Your task to perform on an android device: toggle location history Image 0: 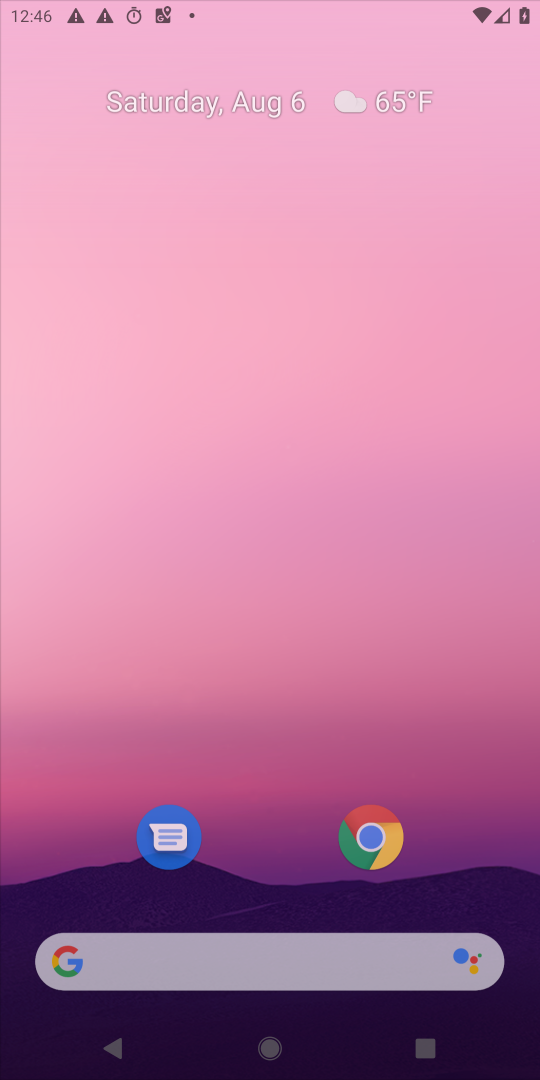
Step 0: press home button
Your task to perform on an android device: toggle location history Image 1: 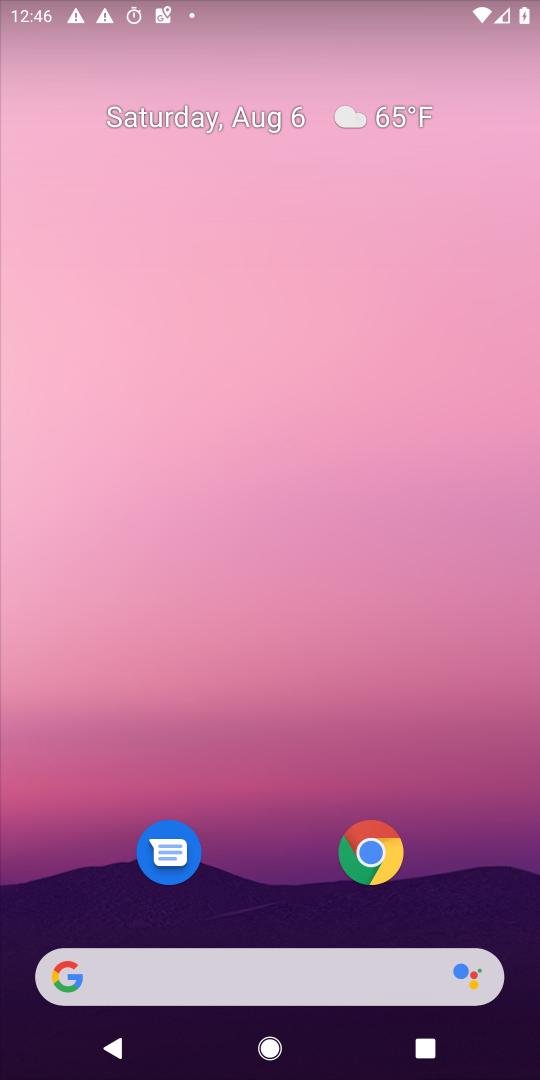
Step 1: drag from (385, 971) to (346, 163)
Your task to perform on an android device: toggle location history Image 2: 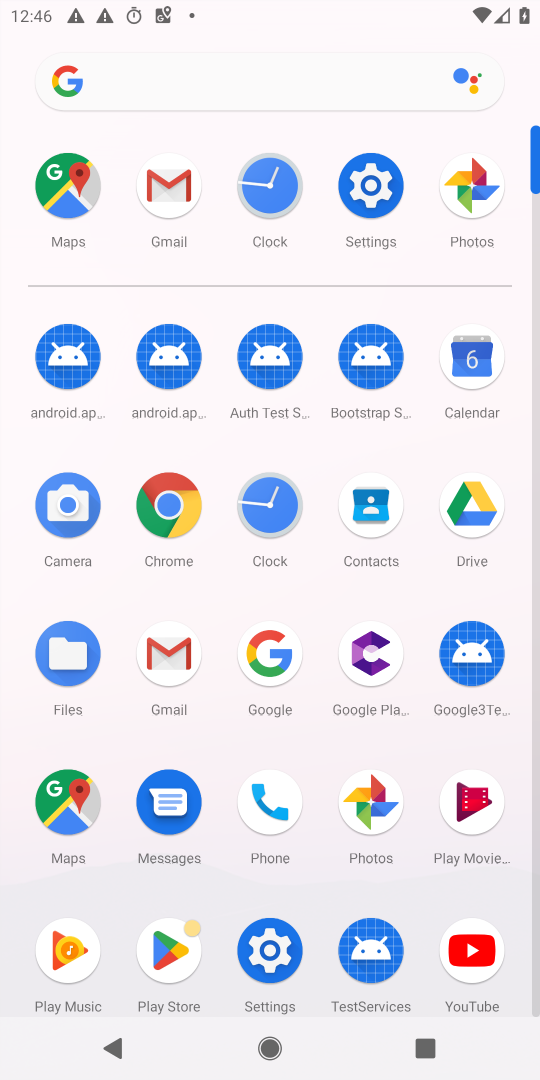
Step 2: click (286, 934)
Your task to perform on an android device: toggle location history Image 3: 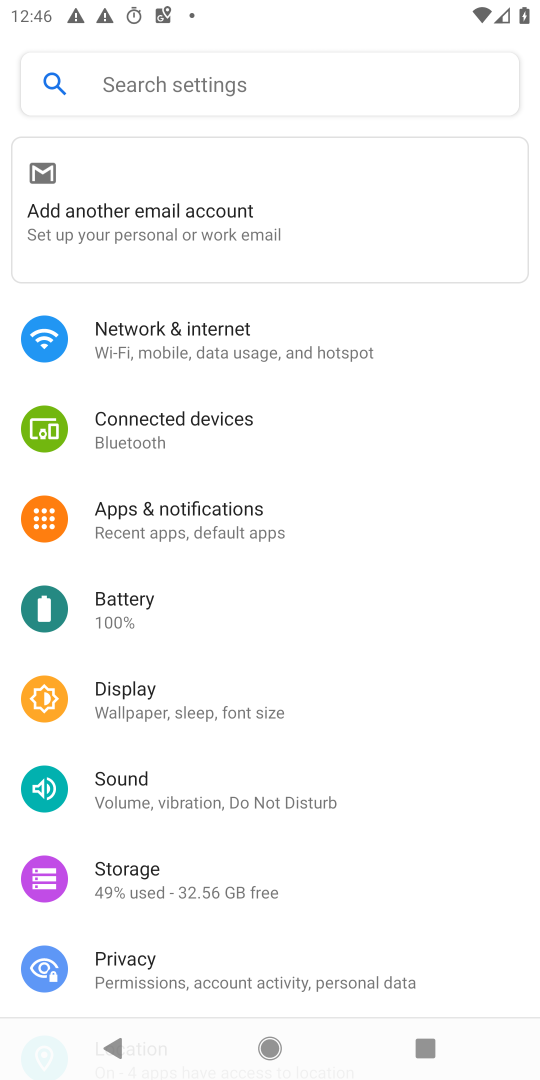
Step 3: drag from (217, 903) to (214, 788)
Your task to perform on an android device: toggle location history Image 4: 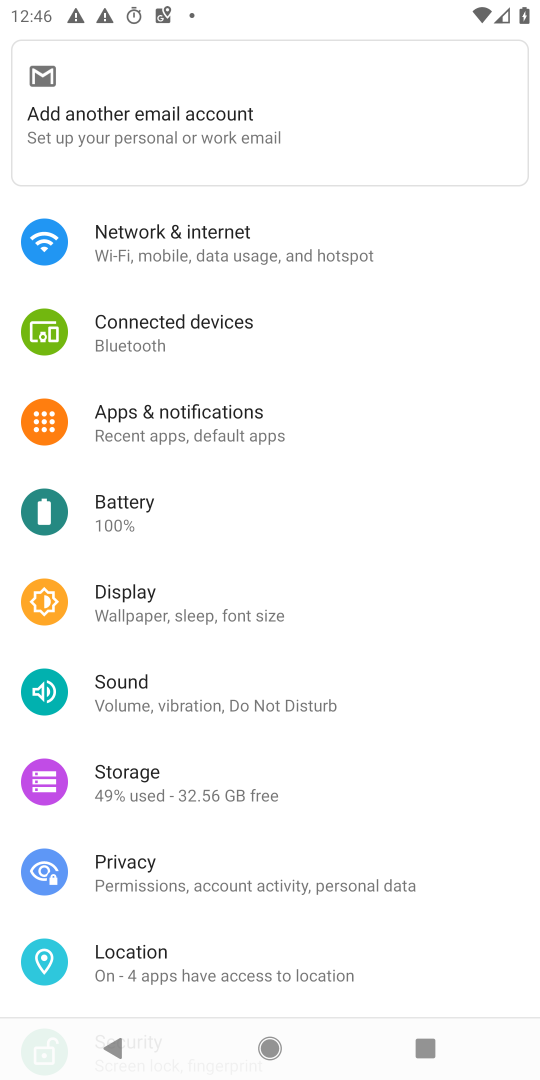
Step 4: click (184, 973)
Your task to perform on an android device: toggle location history Image 5: 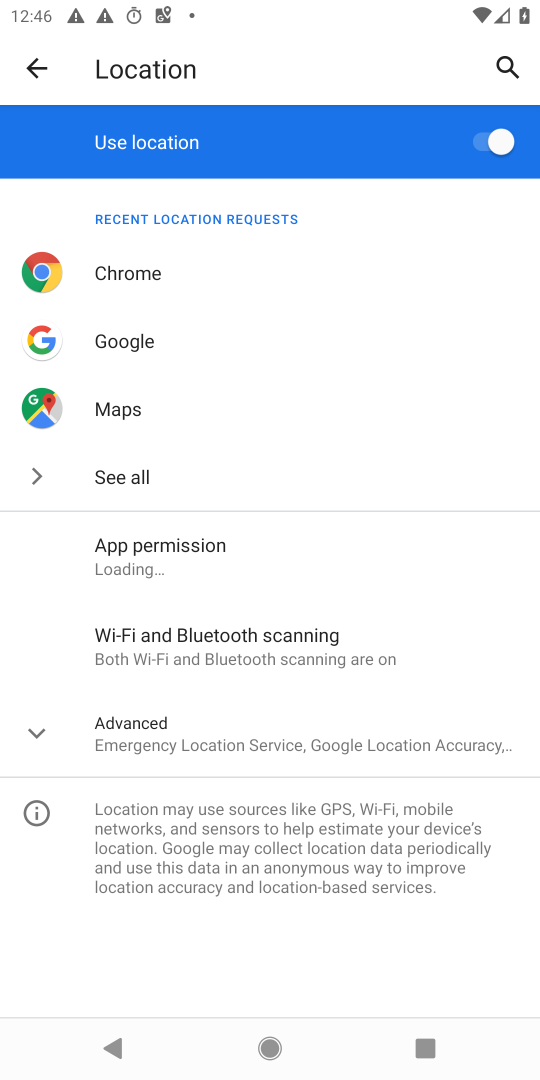
Step 5: click (45, 750)
Your task to perform on an android device: toggle location history Image 6: 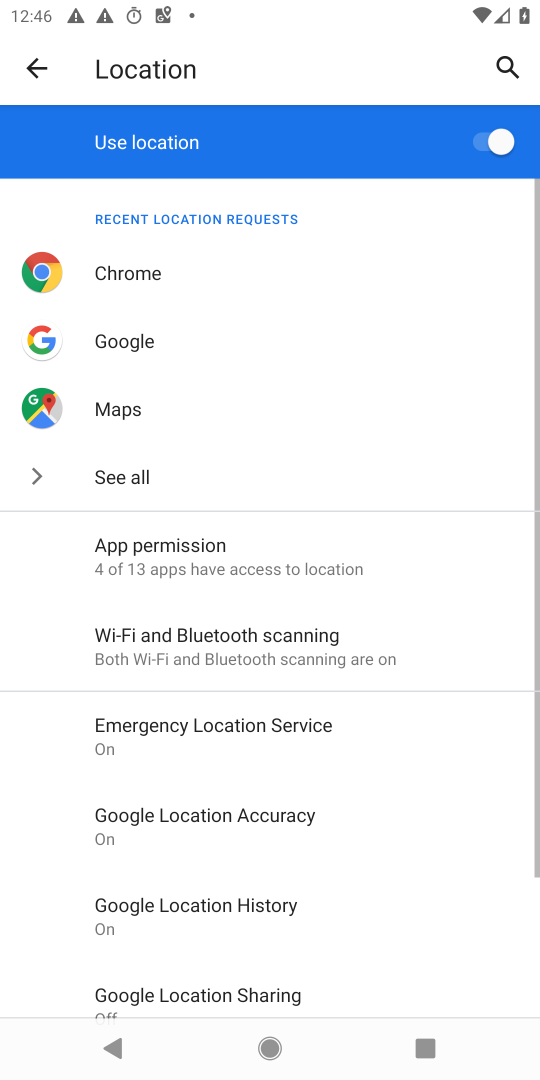
Step 6: click (278, 930)
Your task to perform on an android device: toggle location history Image 7: 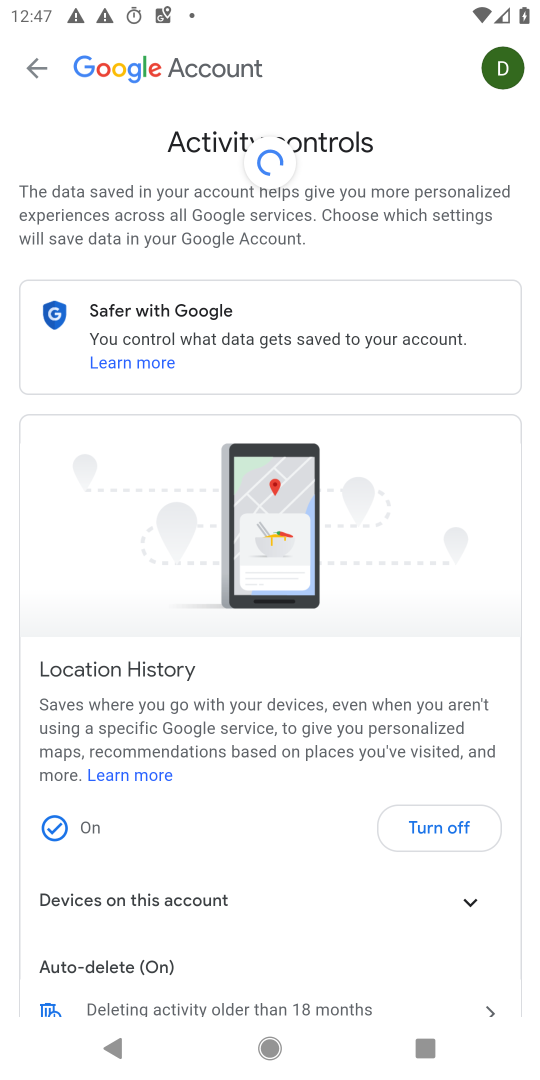
Step 7: task complete